Your task to perform on an android device: When is my next appointment? Image 0: 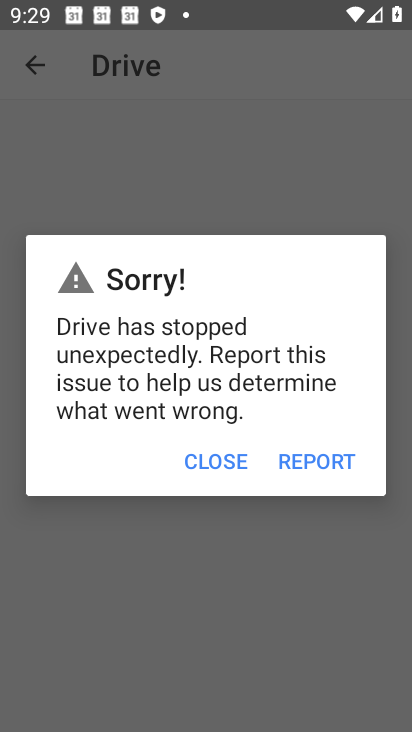
Step 0: press home button
Your task to perform on an android device: When is my next appointment? Image 1: 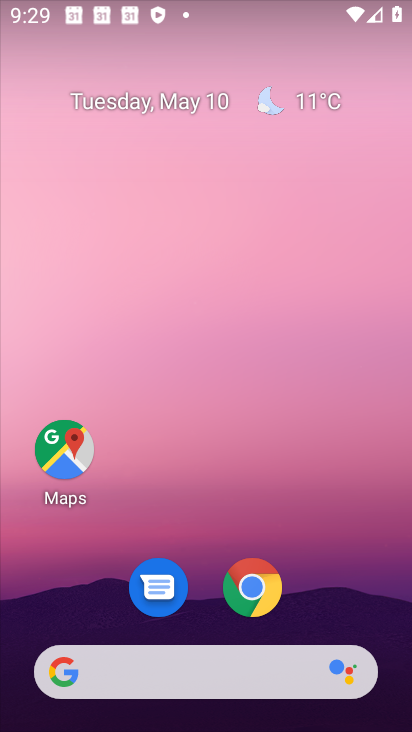
Step 1: drag from (365, 585) to (349, 129)
Your task to perform on an android device: When is my next appointment? Image 2: 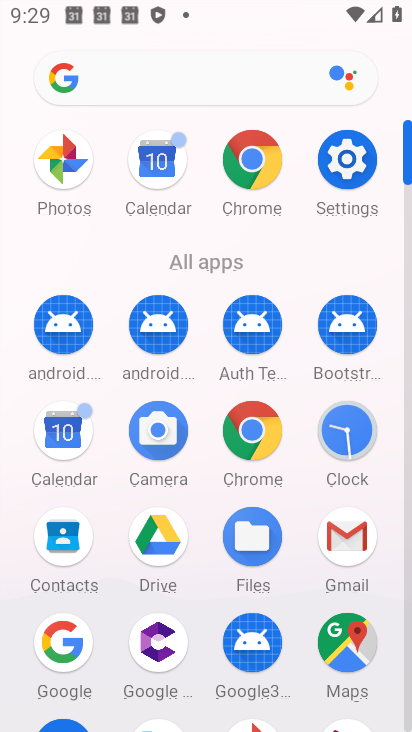
Step 2: click (56, 434)
Your task to perform on an android device: When is my next appointment? Image 3: 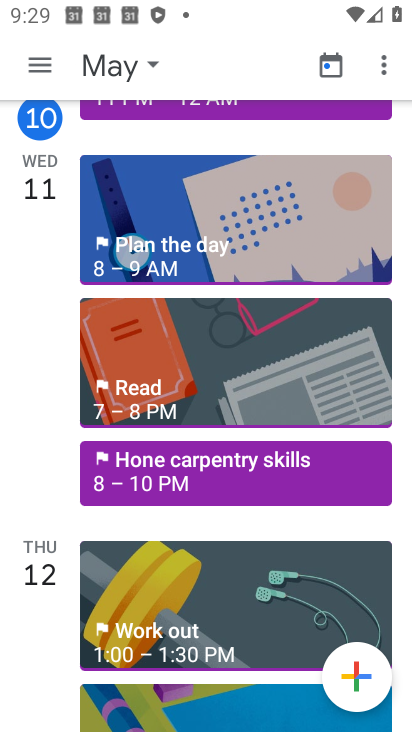
Step 3: task complete